Your task to perform on an android device: Search for sushi restaurants on Maps Image 0: 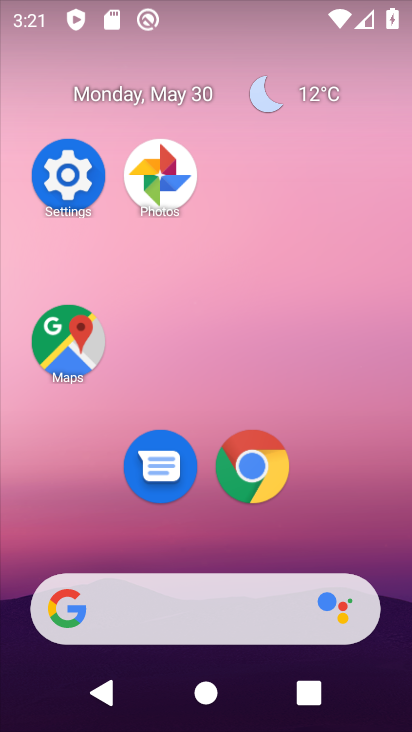
Step 0: click (63, 347)
Your task to perform on an android device: Search for sushi restaurants on Maps Image 1: 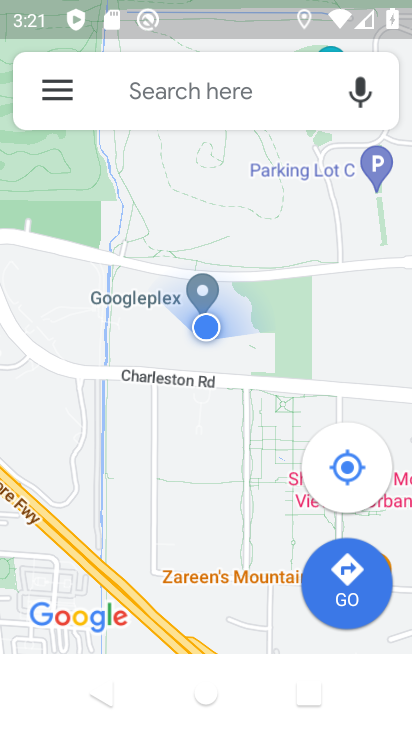
Step 1: click (187, 99)
Your task to perform on an android device: Search for sushi restaurants on Maps Image 2: 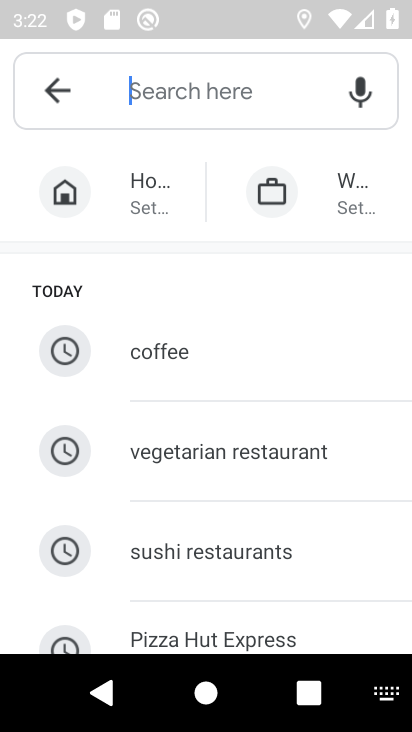
Step 2: click (230, 569)
Your task to perform on an android device: Search for sushi restaurants on Maps Image 3: 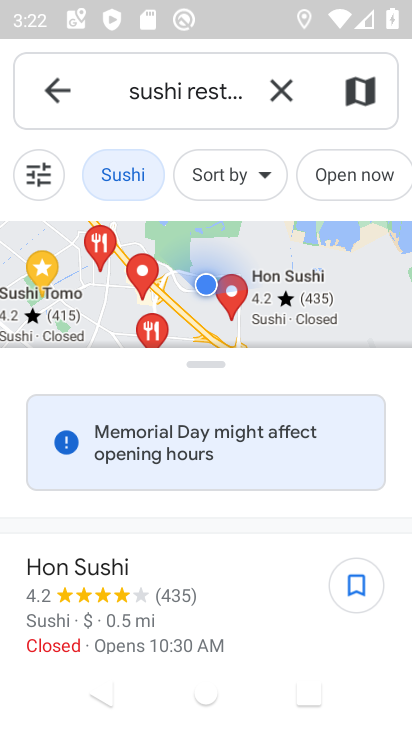
Step 3: task complete